Your task to perform on an android device: turn on notifications settings in the gmail app Image 0: 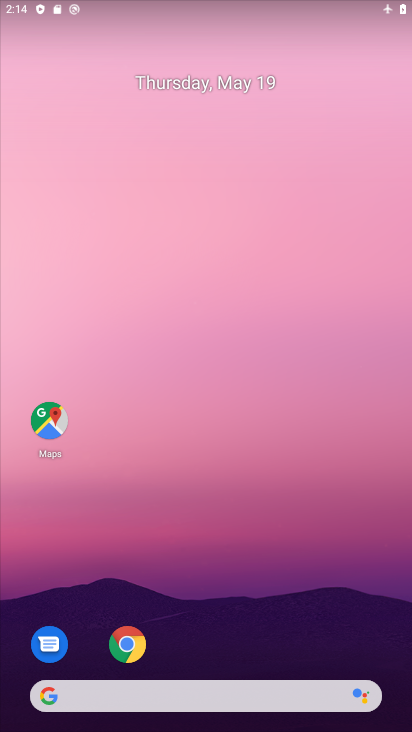
Step 0: drag from (238, 585) to (255, 210)
Your task to perform on an android device: turn on notifications settings in the gmail app Image 1: 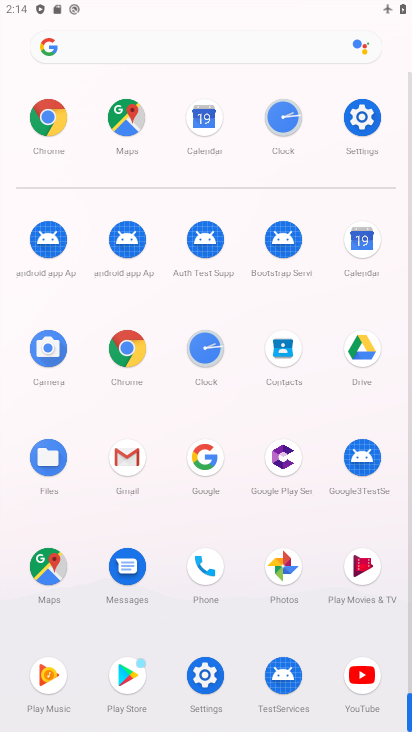
Step 1: click (116, 453)
Your task to perform on an android device: turn on notifications settings in the gmail app Image 2: 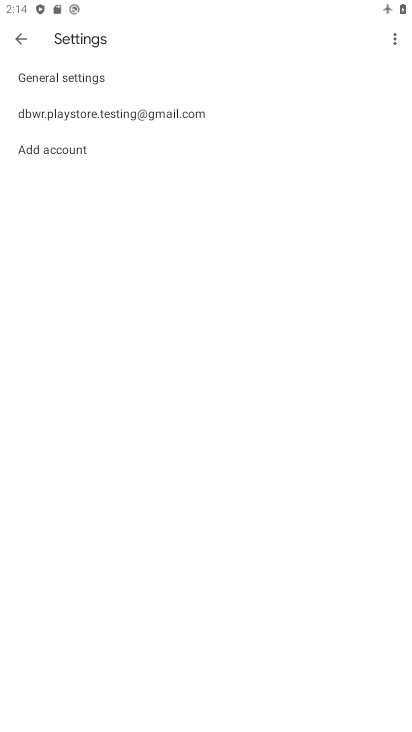
Step 2: click (122, 104)
Your task to perform on an android device: turn on notifications settings in the gmail app Image 3: 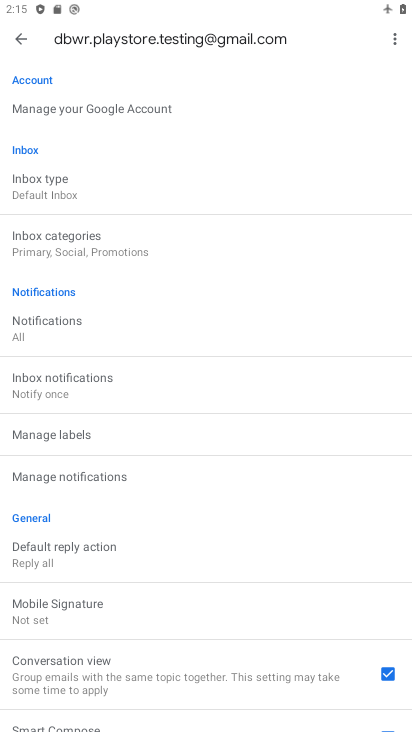
Step 3: click (101, 336)
Your task to perform on an android device: turn on notifications settings in the gmail app Image 4: 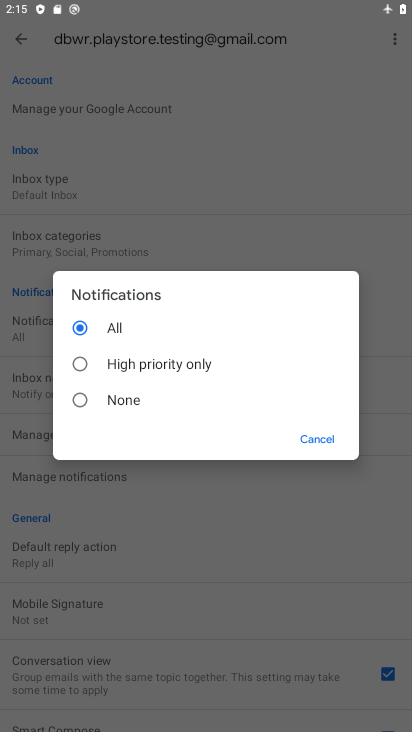
Step 4: task complete